Your task to perform on an android device: open a bookmark in the chrome app Image 0: 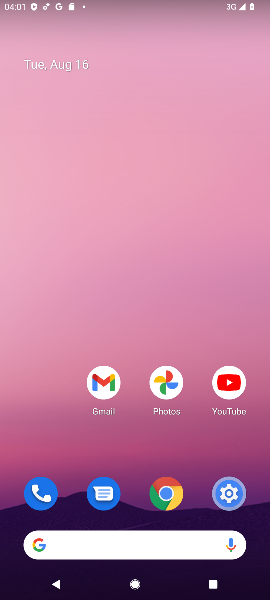
Step 0: press home button
Your task to perform on an android device: open a bookmark in the chrome app Image 1: 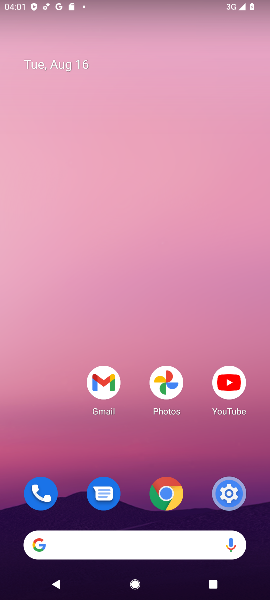
Step 1: drag from (69, 454) to (91, 108)
Your task to perform on an android device: open a bookmark in the chrome app Image 2: 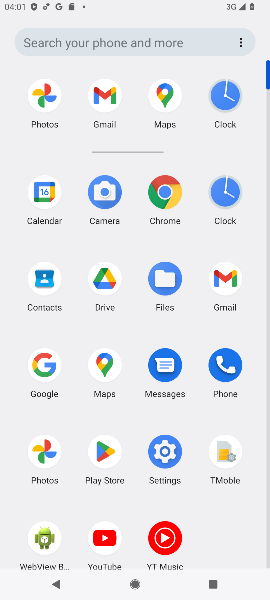
Step 2: click (167, 187)
Your task to perform on an android device: open a bookmark in the chrome app Image 3: 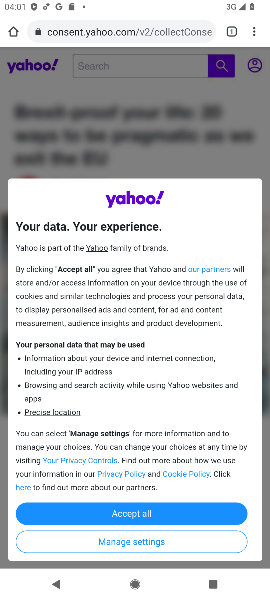
Step 3: click (255, 33)
Your task to perform on an android device: open a bookmark in the chrome app Image 4: 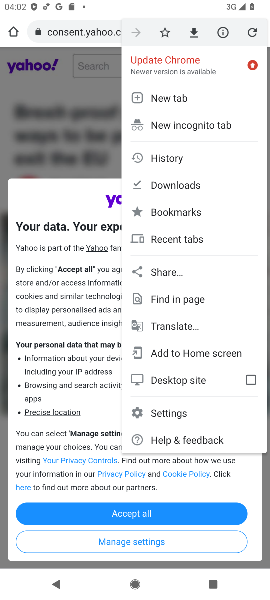
Step 4: click (188, 213)
Your task to perform on an android device: open a bookmark in the chrome app Image 5: 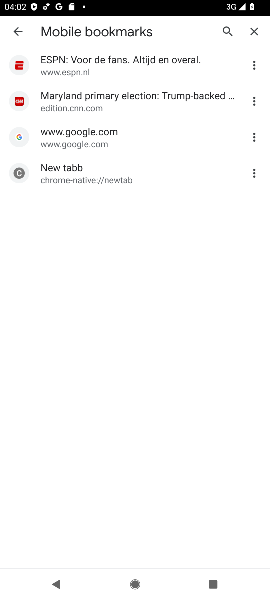
Step 5: task complete